Your task to perform on an android device: Go to Google Image 0: 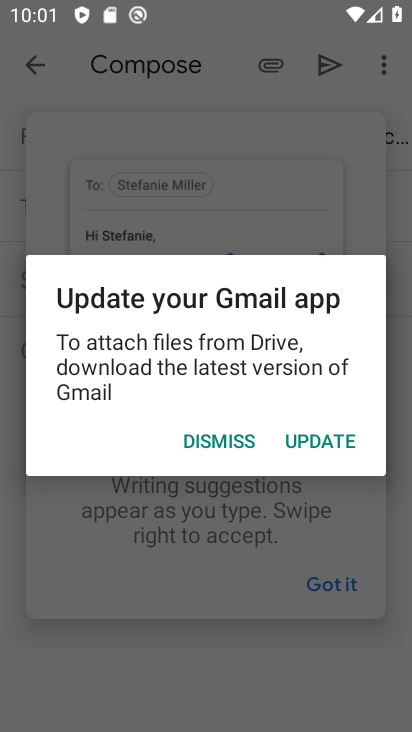
Step 0: press home button
Your task to perform on an android device: Go to Google Image 1: 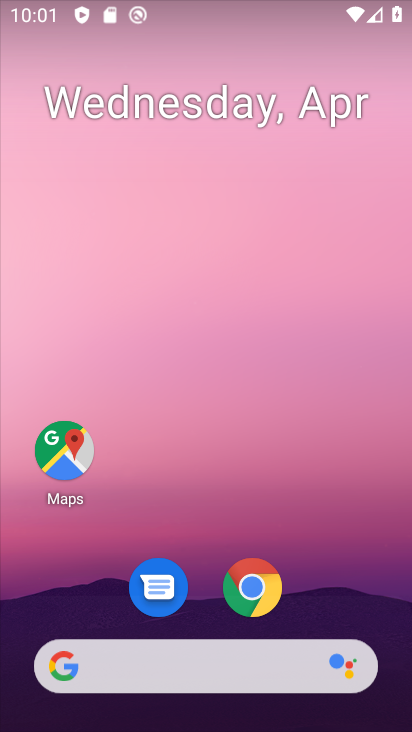
Step 1: drag from (267, 482) to (221, 141)
Your task to perform on an android device: Go to Google Image 2: 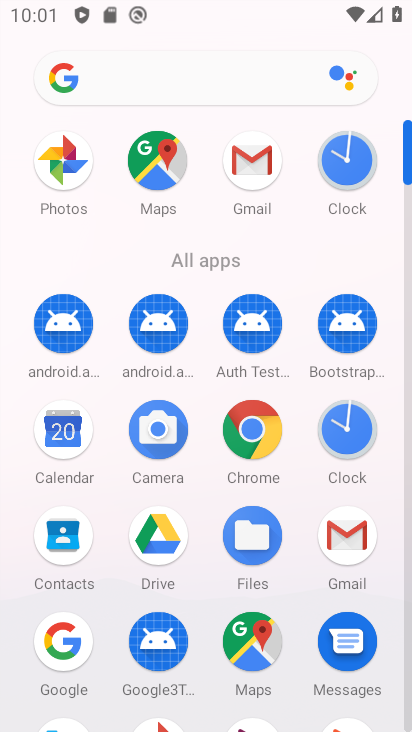
Step 2: click (60, 638)
Your task to perform on an android device: Go to Google Image 3: 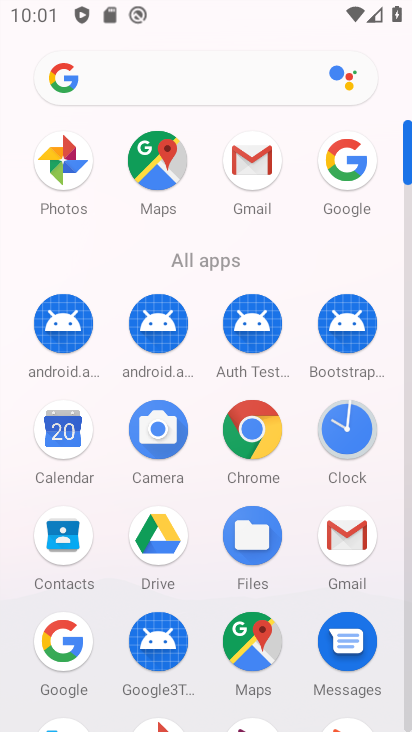
Step 3: click (71, 635)
Your task to perform on an android device: Go to Google Image 4: 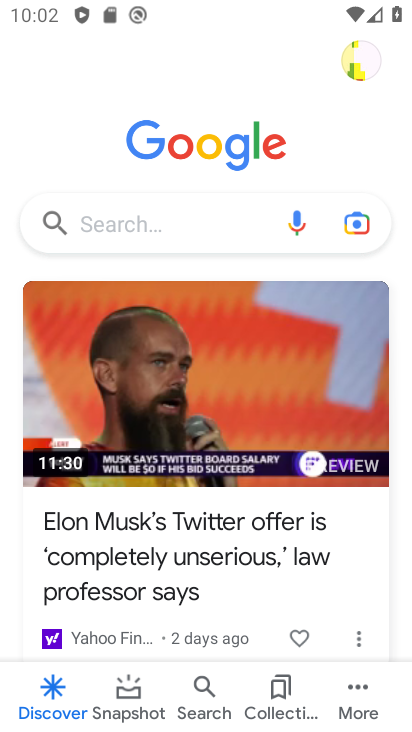
Step 4: task complete